Your task to perform on an android device: Is it going to rain today? Image 0: 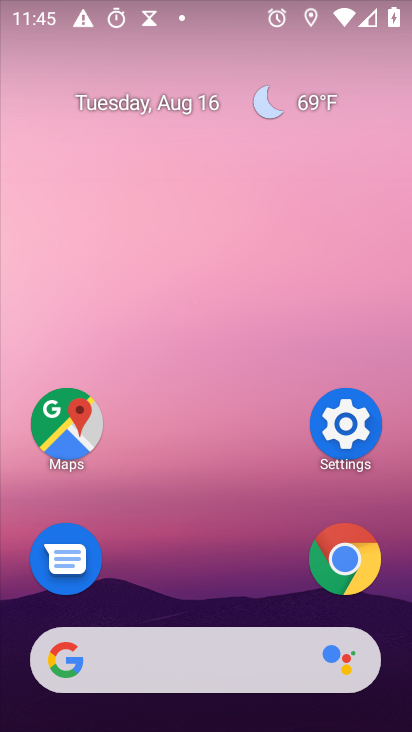
Step 0: click (134, 652)
Your task to perform on an android device: Is it going to rain today? Image 1: 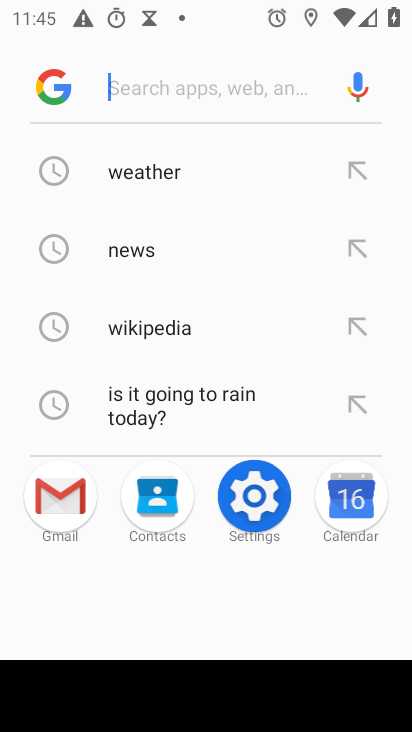
Step 1: click (219, 393)
Your task to perform on an android device: Is it going to rain today? Image 2: 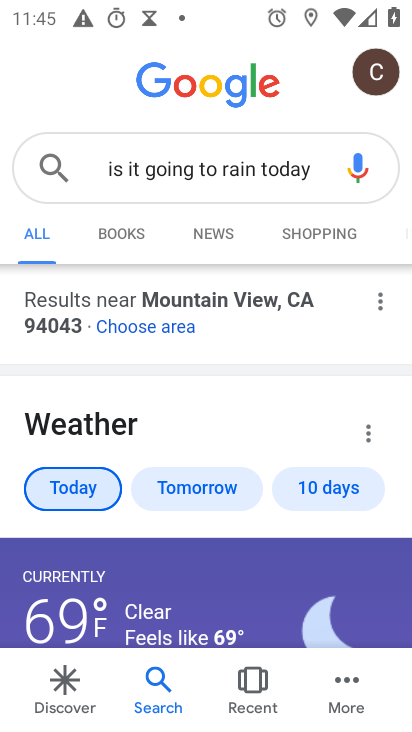
Step 2: task complete